Your task to perform on an android device: open app "Truecaller" Image 0: 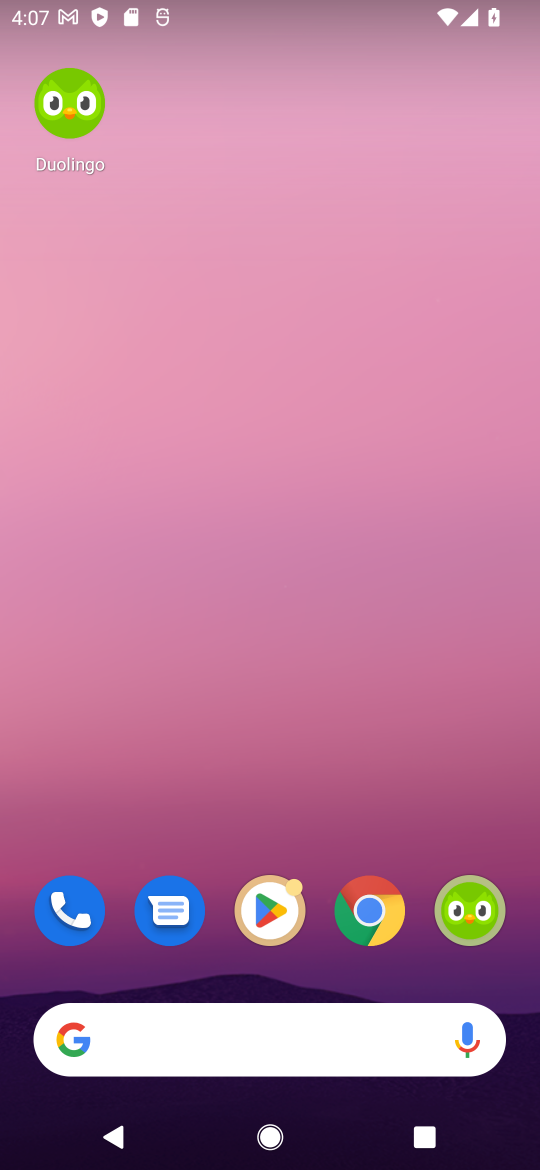
Step 0: click (272, 896)
Your task to perform on an android device: open app "Truecaller" Image 1: 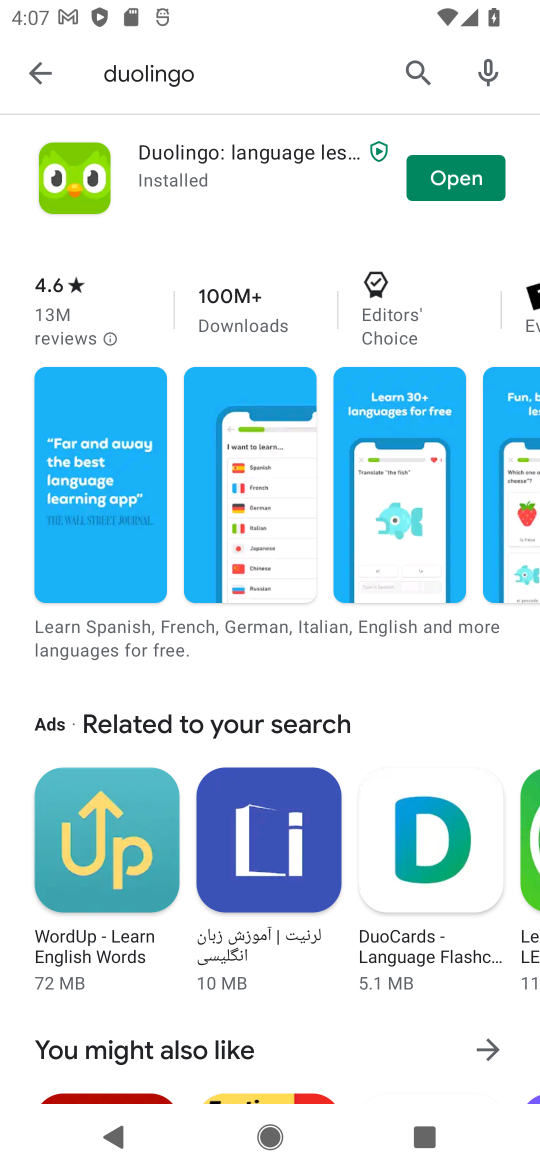
Step 1: click (413, 62)
Your task to perform on an android device: open app "Truecaller" Image 2: 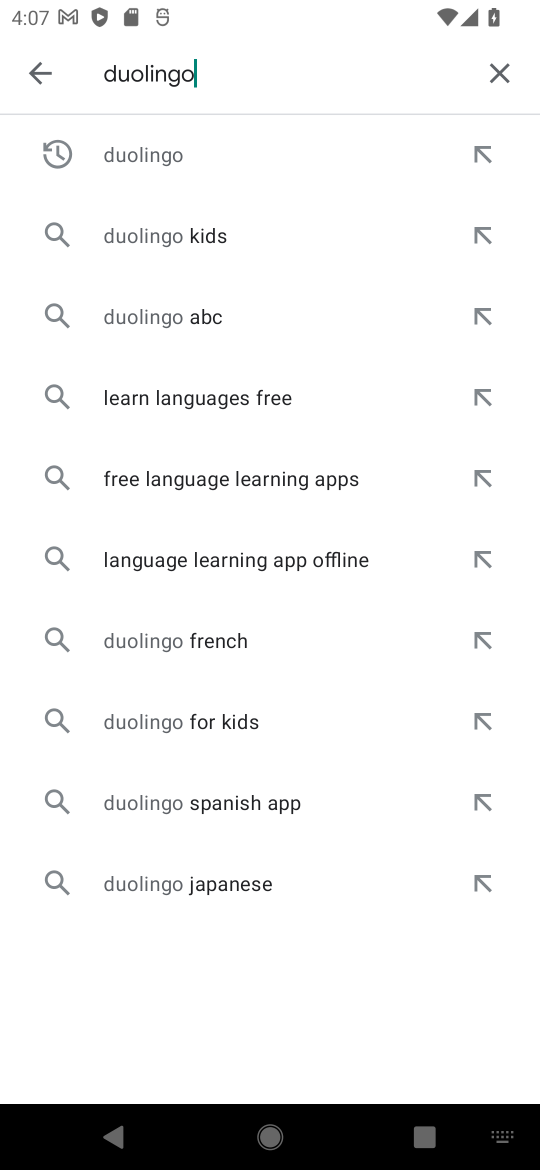
Step 2: click (497, 56)
Your task to perform on an android device: open app "Truecaller" Image 3: 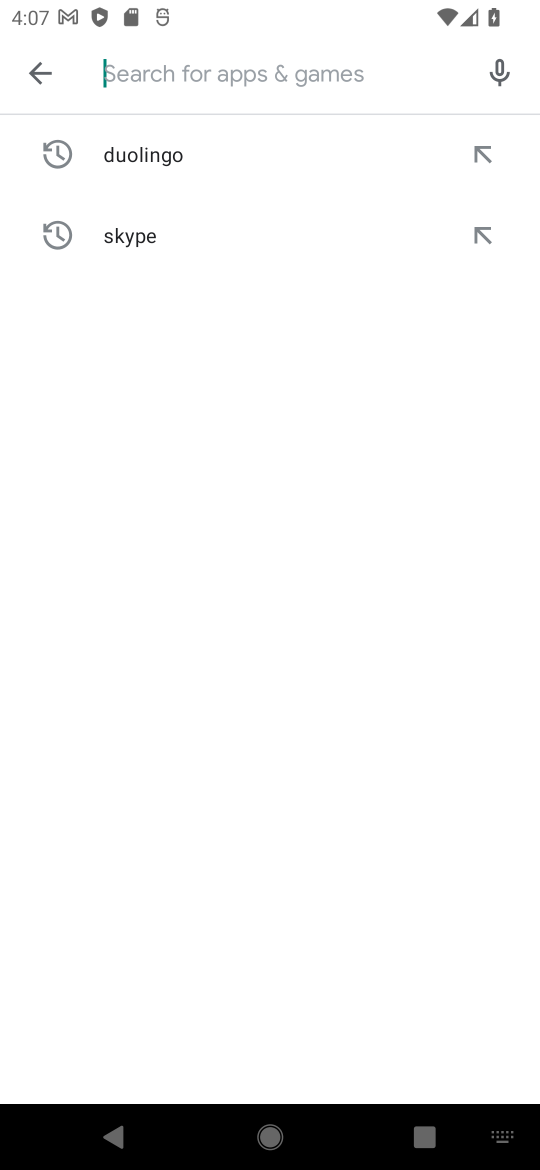
Step 3: click (185, 81)
Your task to perform on an android device: open app "Truecaller" Image 4: 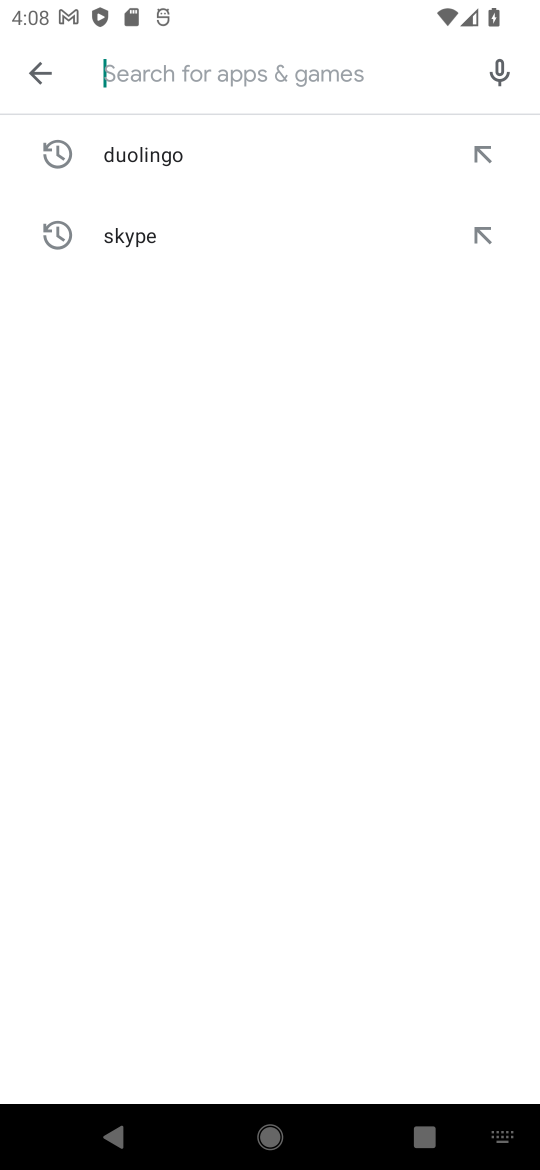
Step 4: type "truecaller"
Your task to perform on an android device: open app "Truecaller" Image 5: 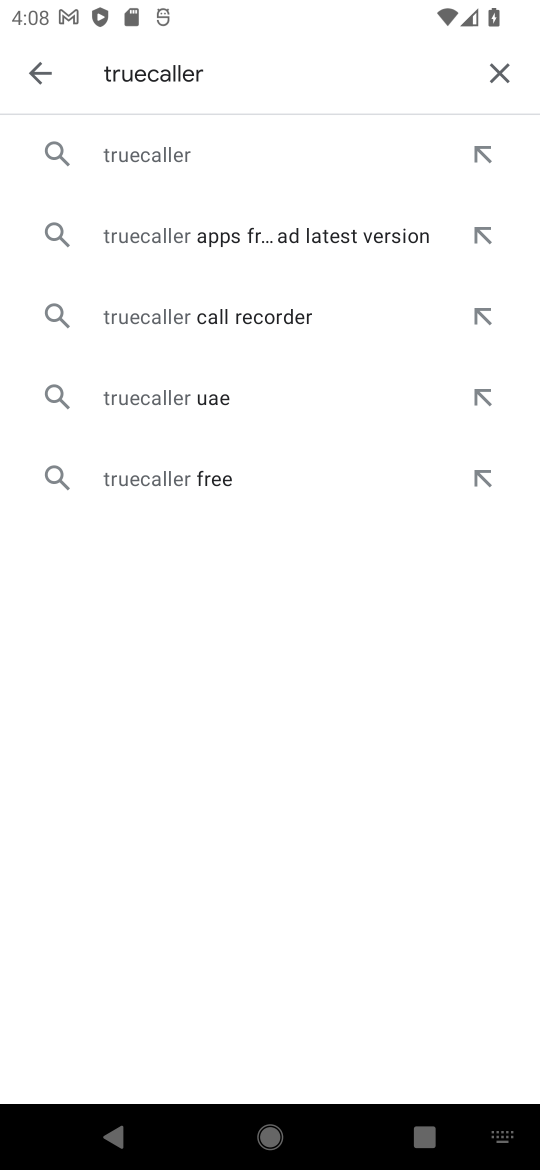
Step 5: click (195, 151)
Your task to perform on an android device: open app "Truecaller" Image 6: 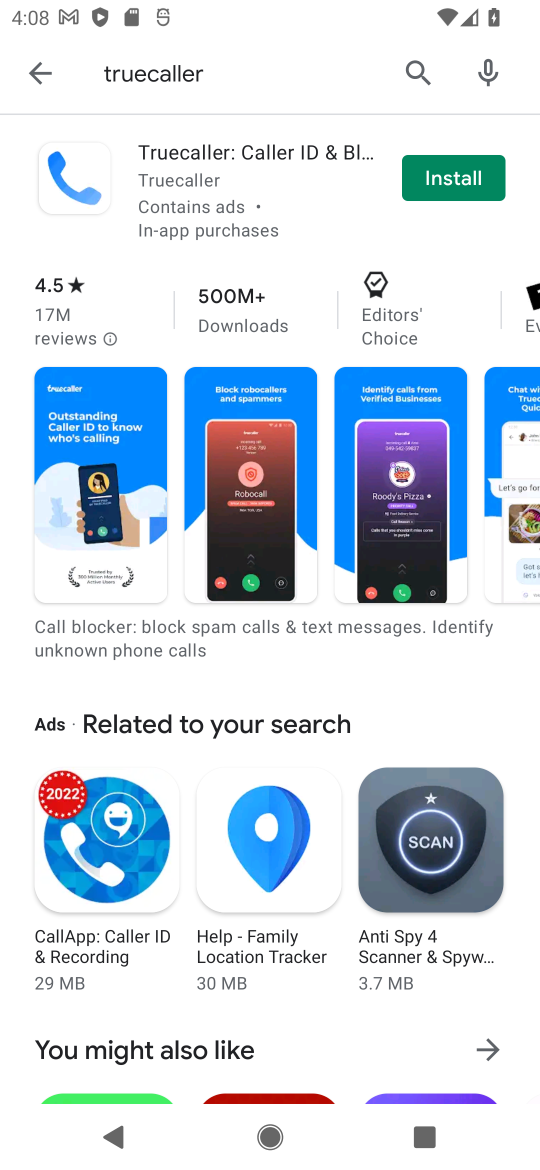
Step 6: task complete